Your task to perform on an android device: Go to battery settings Image 0: 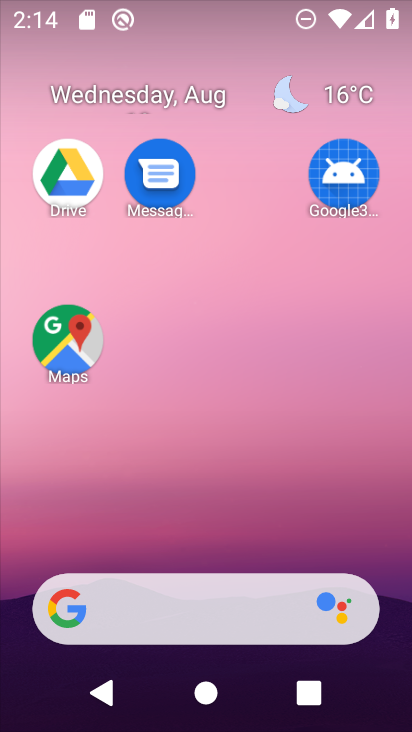
Step 0: drag from (227, 5) to (267, 598)
Your task to perform on an android device: Go to battery settings Image 1: 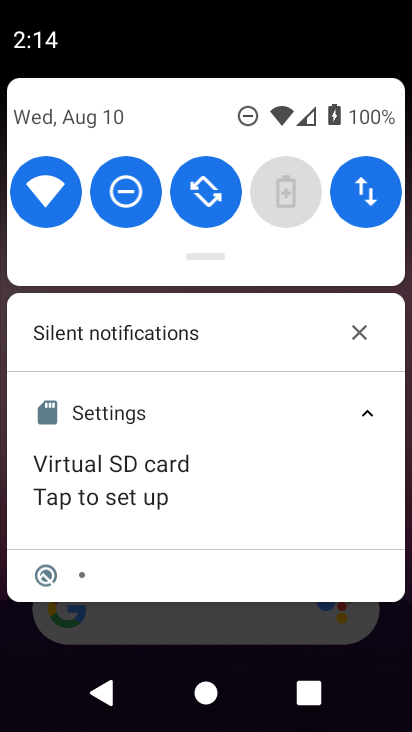
Step 1: click (301, 190)
Your task to perform on an android device: Go to battery settings Image 2: 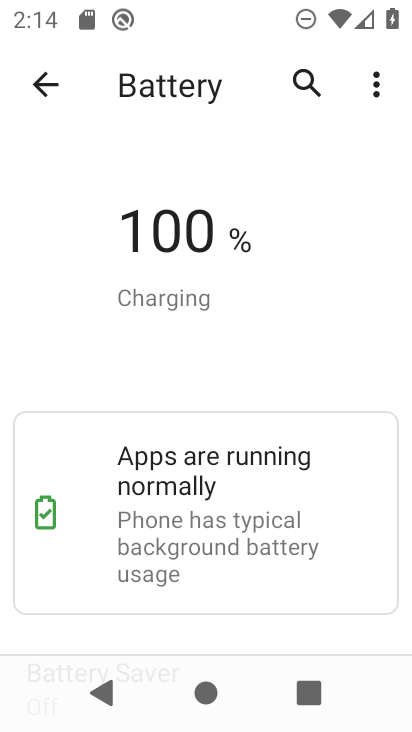
Step 2: task complete